Your task to perform on an android device: Go to eBay Image 0: 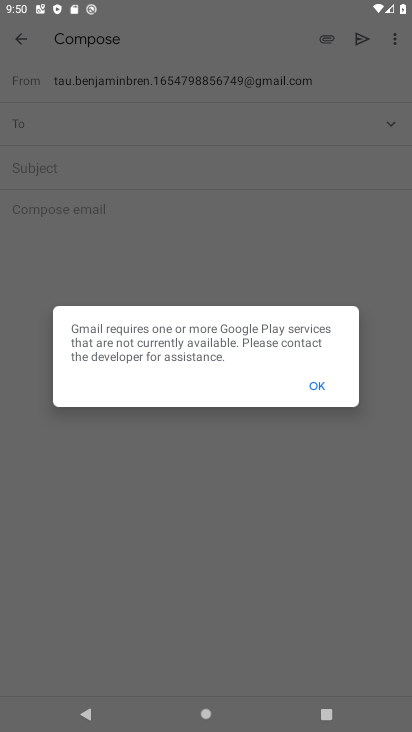
Step 0: press home button
Your task to perform on an android device: Go to eBay Image 1: 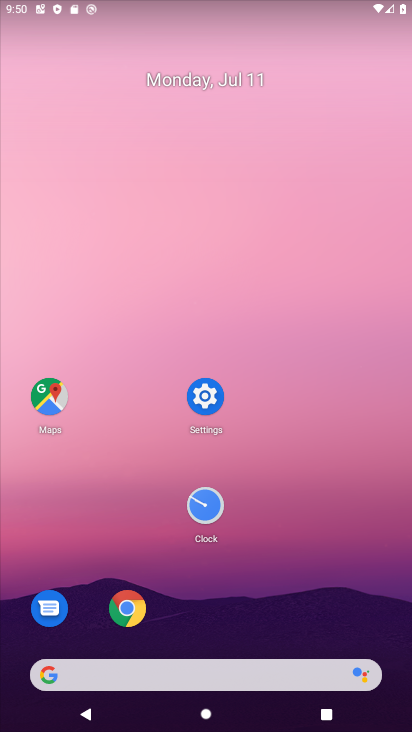
Step 1: click (132, 609)
Your task to perform on an android device: Go to eBay Image 2: 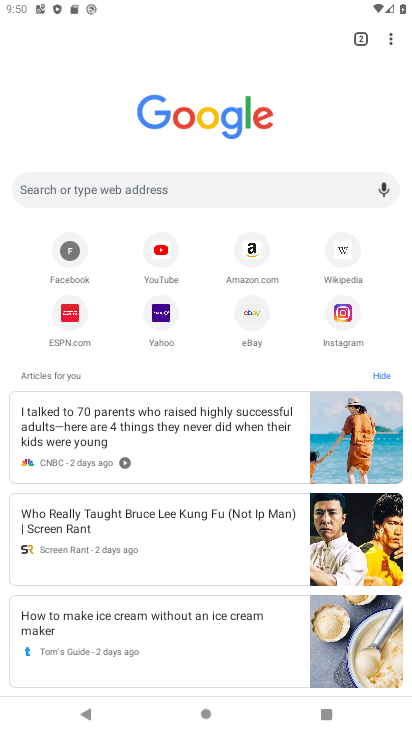
Step 2: click (160, 194)
Your task to perform on an android device: Go to eBay Image 3: 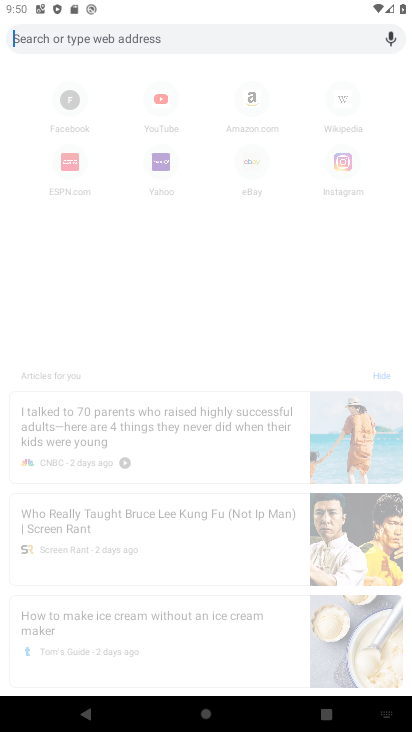
Step 3: type "eBay"
Your task to perform on an android device: Go to eBay Image 4: 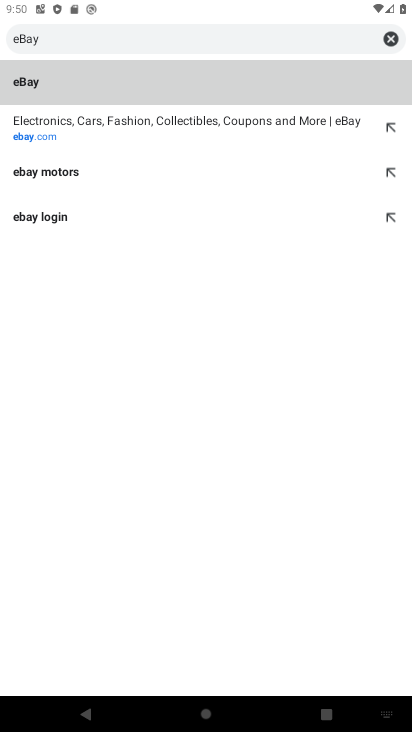
Step 4: click (75, 80)
Your task to perform on an android device: Go to eBay Image 5: 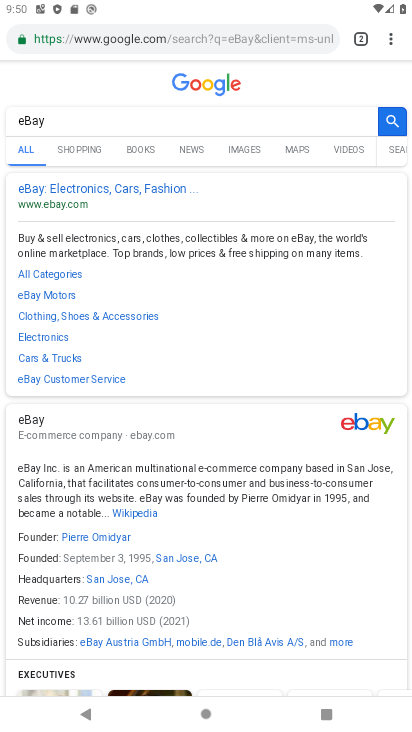
Step 5: task complete